Your task to perform on an android device: toggle pop-ups in chrome Image 0: 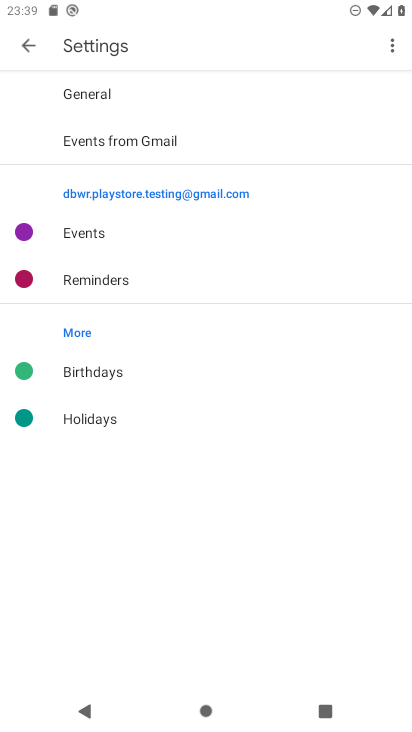
Step 0: press home button
Your task to perform on an android device: toggle pop-ups in chrome Image 1: 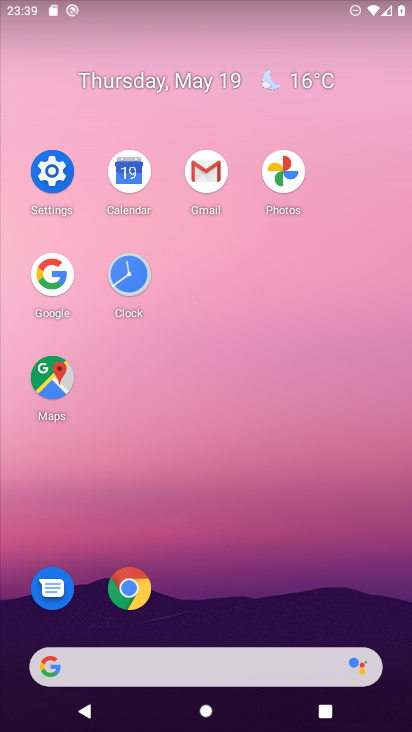
Step 1: click (131, 601)
Your task to perform on an android device: toggle pop-ups in chrome Image 2: 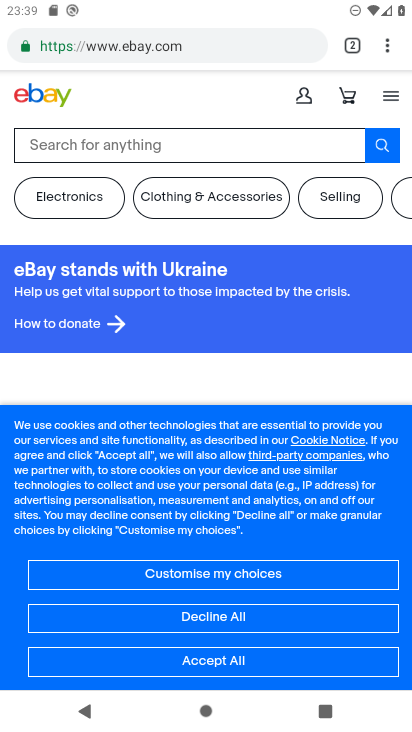
Step 2: click (391, 43)
Your task to perform on an android device: toggle pop-ups in chrome Image 3: 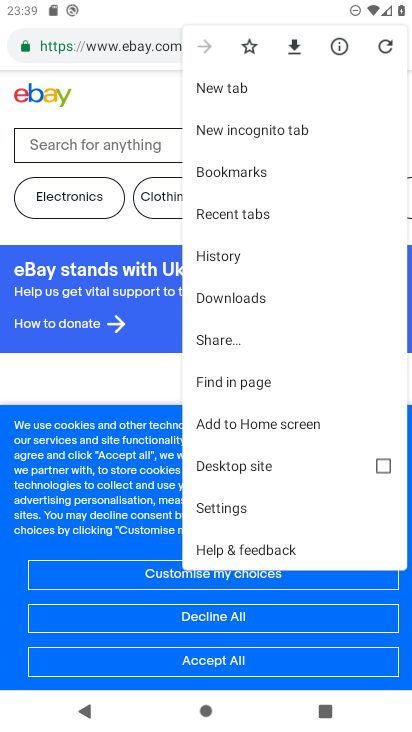
Step 3: click (218, 511)
Your task to perform on an android device: toggle pop-ups in chrome Image 4: 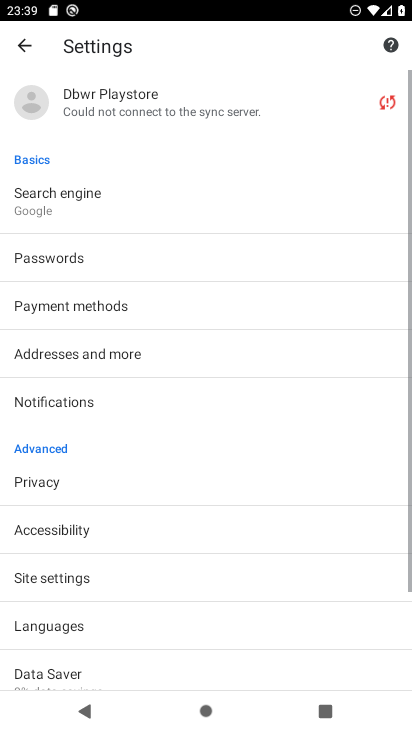
Step 4: drag from (218, 510) to (273, 169)
Your task to perform on an android device: toggle pop-ups in chrome Image 5: 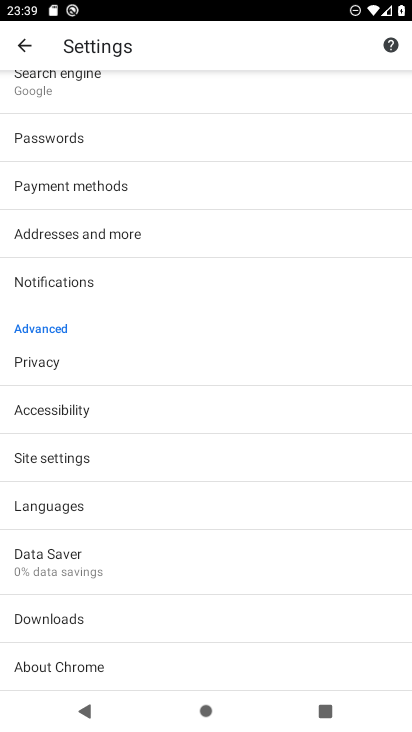
Step 5: click (130, 464)
Your task to perform on an android device: toggle pop-ups in chrome Image 6: 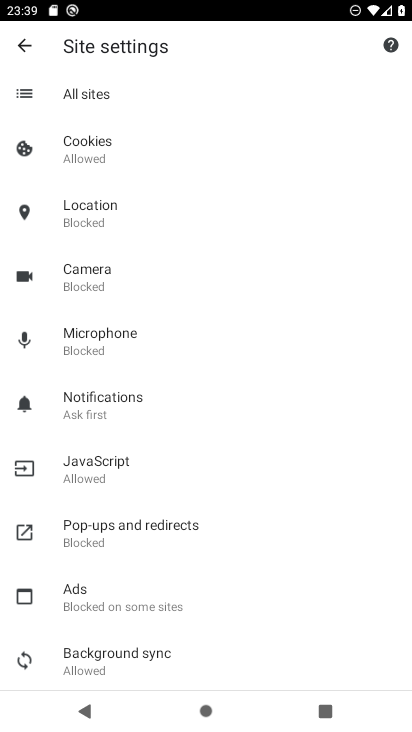
Step 6: click (165, 533)
Your task to perform on an android device: toggle pop-ups in chrome Image 7: 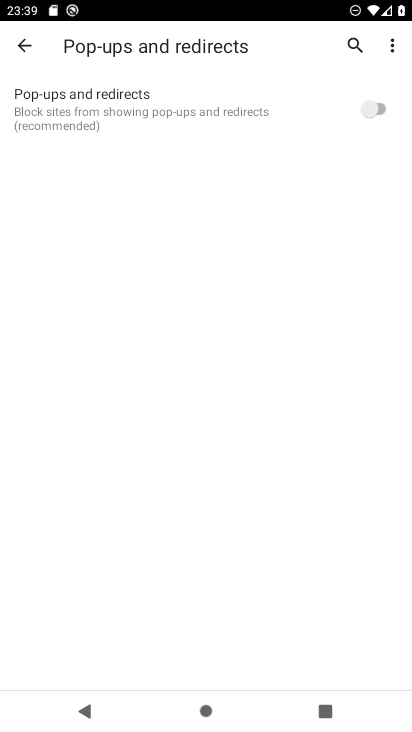
Step 7: click (368, 114)
Your task to perform on an android device: toggle pop-ups in chrome Image 8: 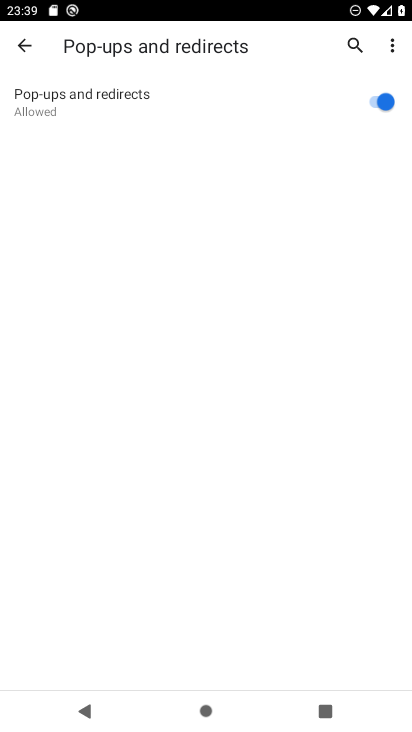
Step 8: task complete